Your task to perform on an android device: Open internet settings Image 0: 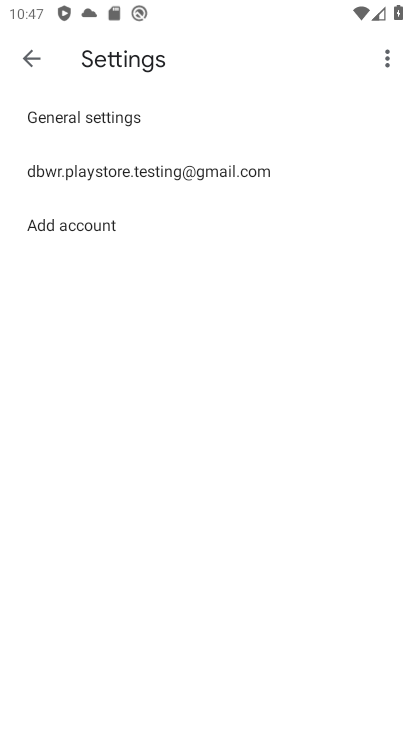
Step 0: press home button
Your task to perform on an android device: Open internet settings Image 1: 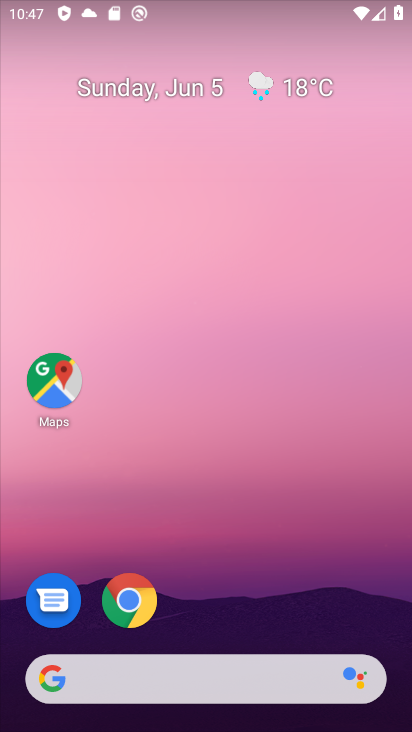
Step 1: drag from (243, 628) to (206, 136)
Your task to perform on an android device: Open internet settings Image 2: 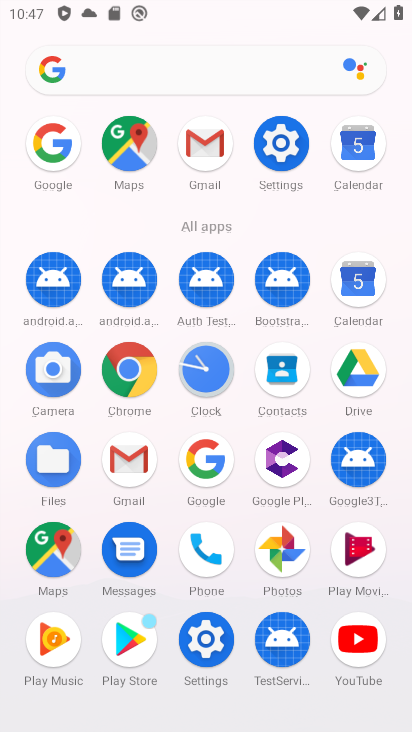
Step 2: click (262, 152)
Your task to perform on an android device: Open internet settings Image 3: 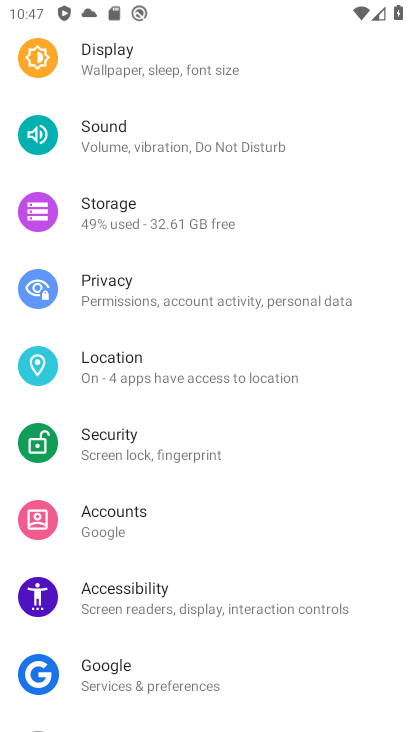
Step 3: drag from (227, 374) to (244, 518)
Your task to perform on an android device: Open internet settings Image 4: 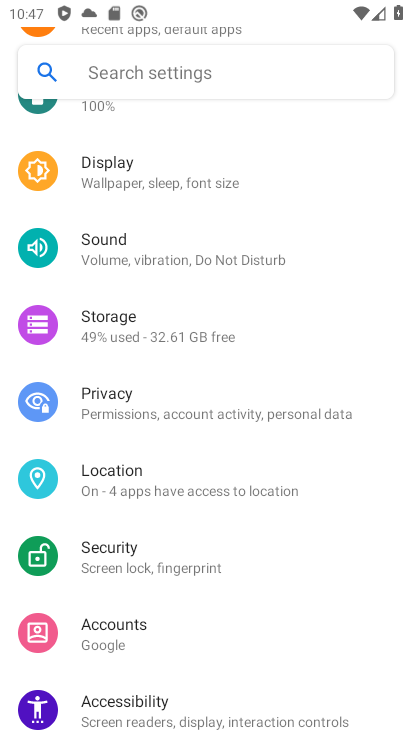
Step 4: drag from (197, 179) to (216, 455)
Your task to perform on an android device: Open internet settings Image 5: 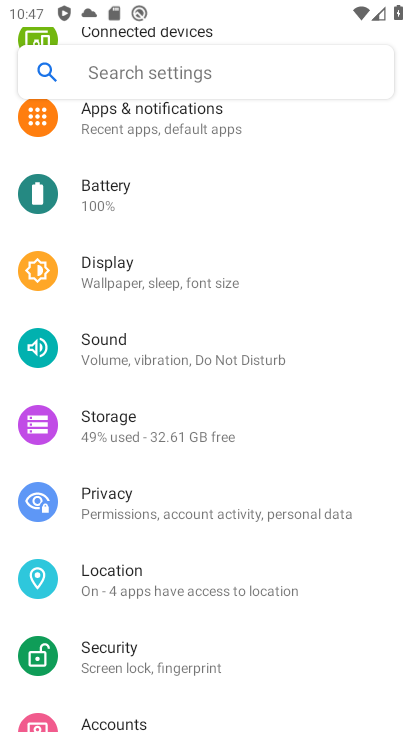
Step 5: drag from (227, 235) to (243, 490)
Your task to perform on an android device: Open internet settings Image 6: 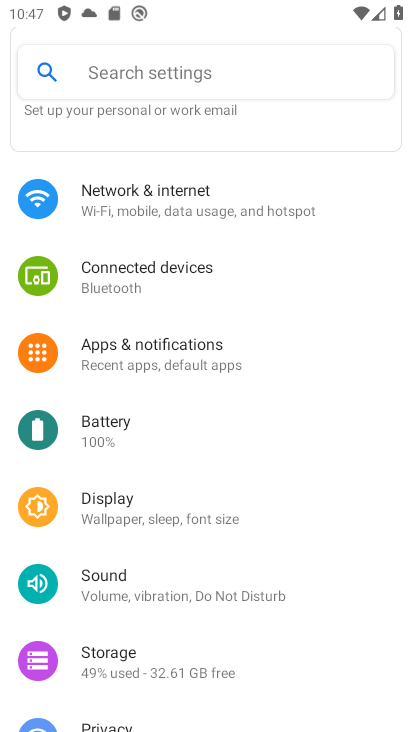
Step 6: click (208, 214)
Your task to perform on an android device: Open internet settings Image 7: 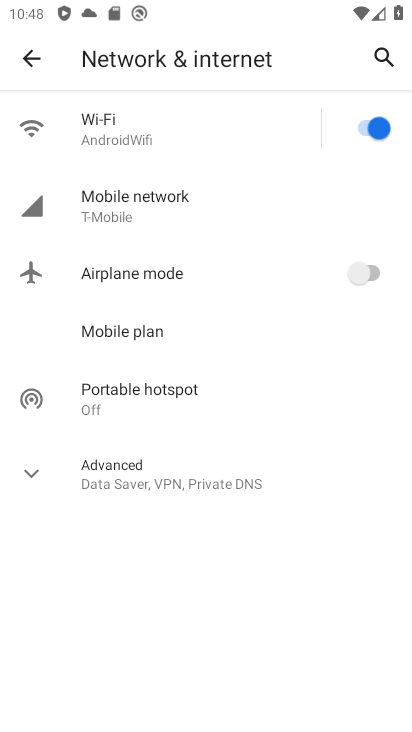
Step 7: click (171, 213)
Your task to perform on an android device: Open internet settings Image 8: 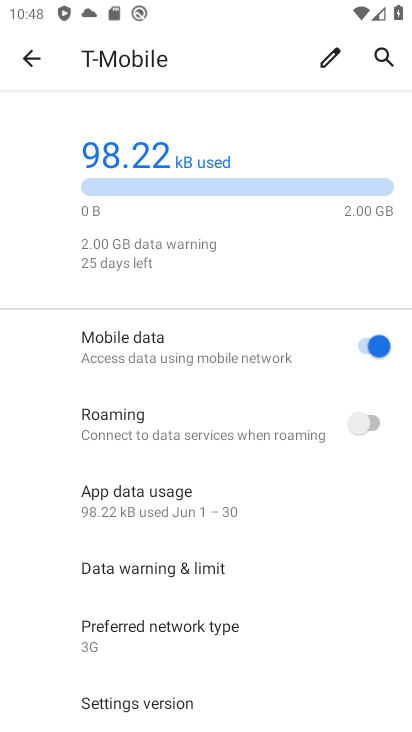
Step 8: task complete